Your task to perform on an android device: turn vacation reply on in the gmail app Image 0: 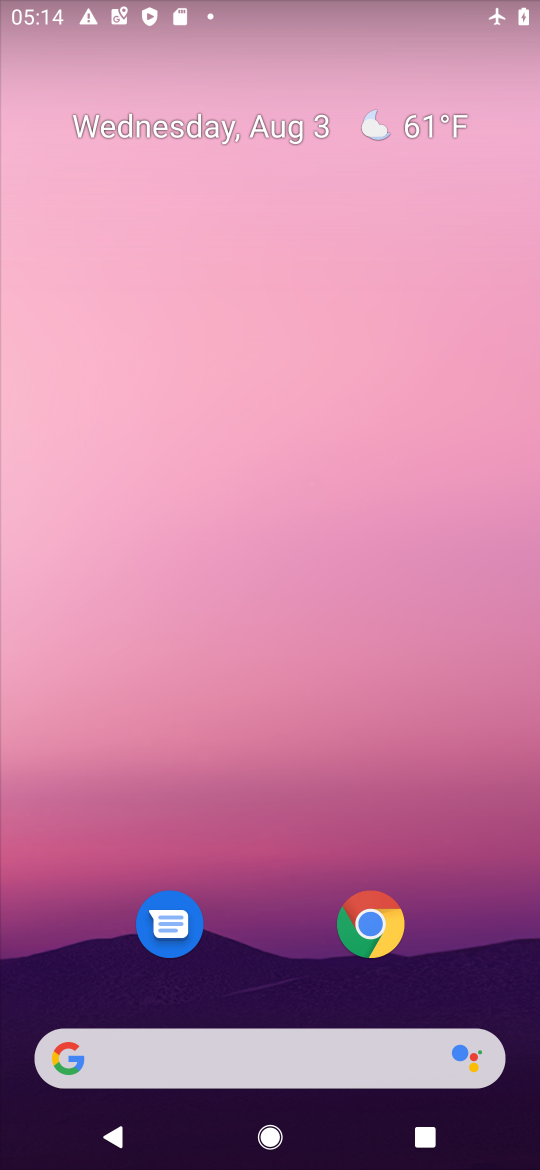
Step 0: drag from (247, 960) to (220, 427)
Your task to perform on an android device: turn vacation reply on in the gmail app Image 1: 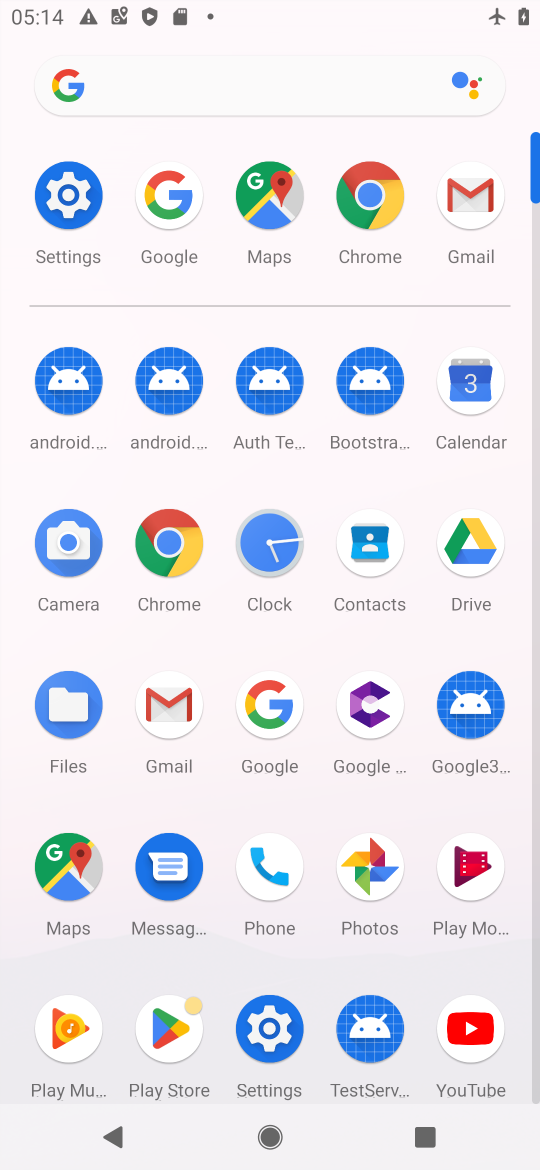
Step 1: click (445, 196)
Your task to perform on an android device: turn vacation reply on in the gmail app Image 2: 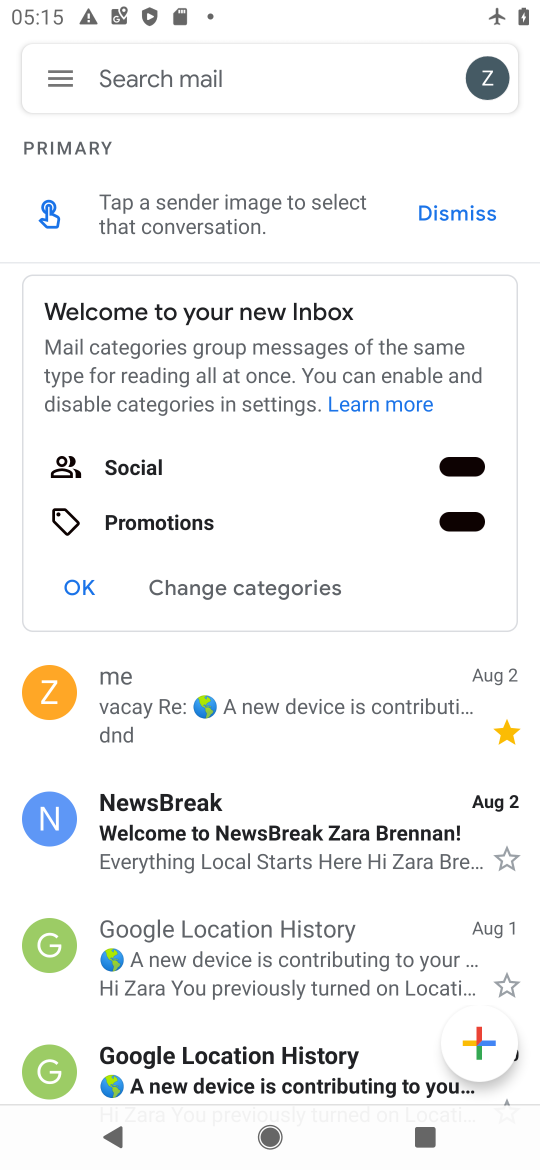
Step 2: click (47, 77)
Your task to perform on an android device: turn vacation reply on in the gmail app Image 3: 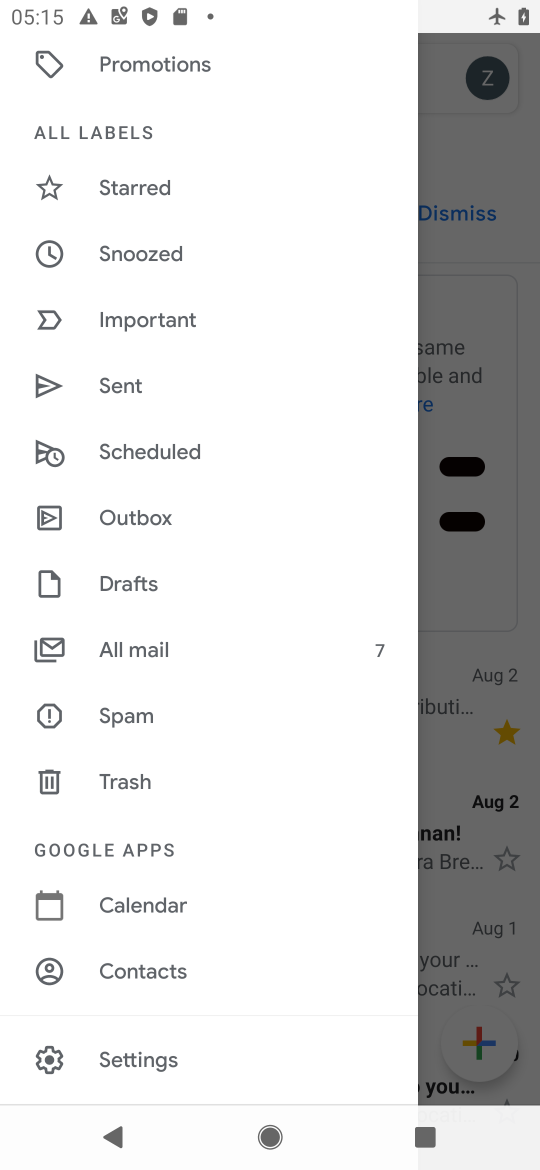
Step 3: click (160, 1041)
Your task to perform on an android device: turn vacation reply on in the gmail app Image 4: 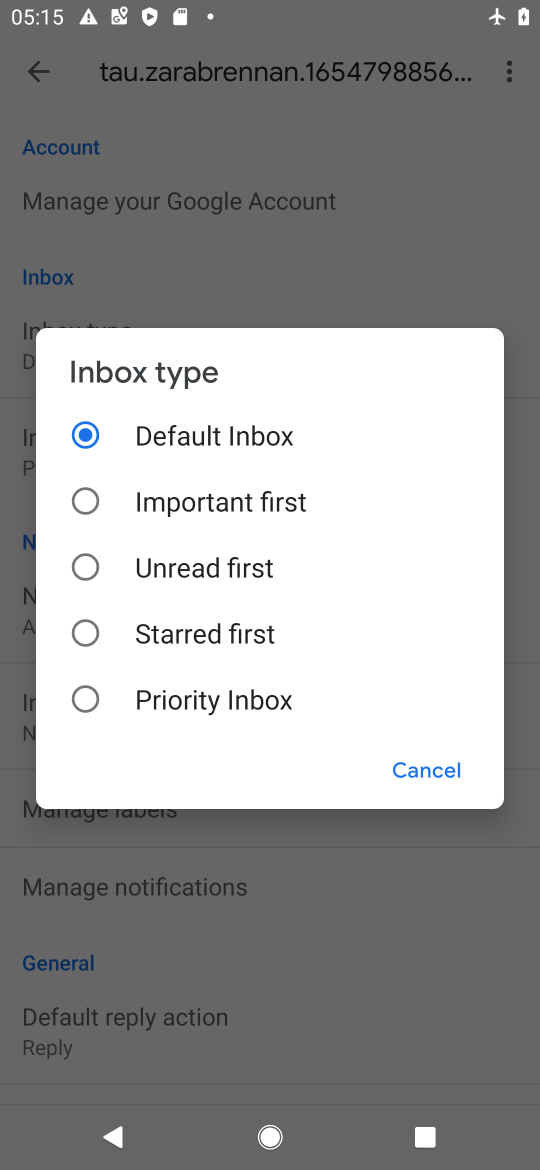
Step 4: click (443, 750)
Your task to perform on an android device: turn vacation reply on in the gmail app Image 5: 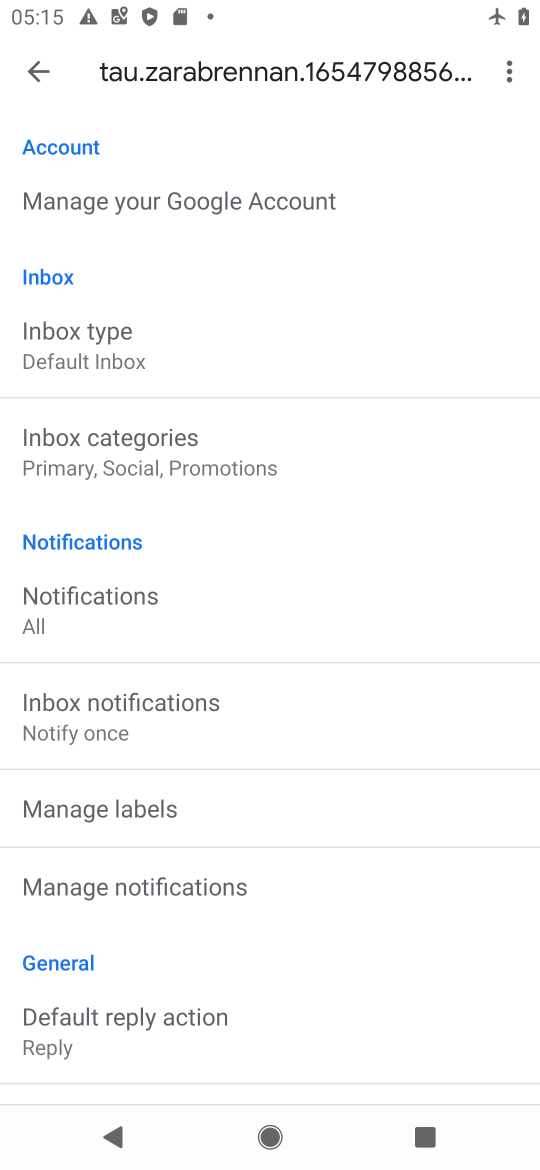
Step 5: drag from (327, 982) to (406, 573)
Your task to perform on an android device: turn vacation reply on in the gmail app Image 6: 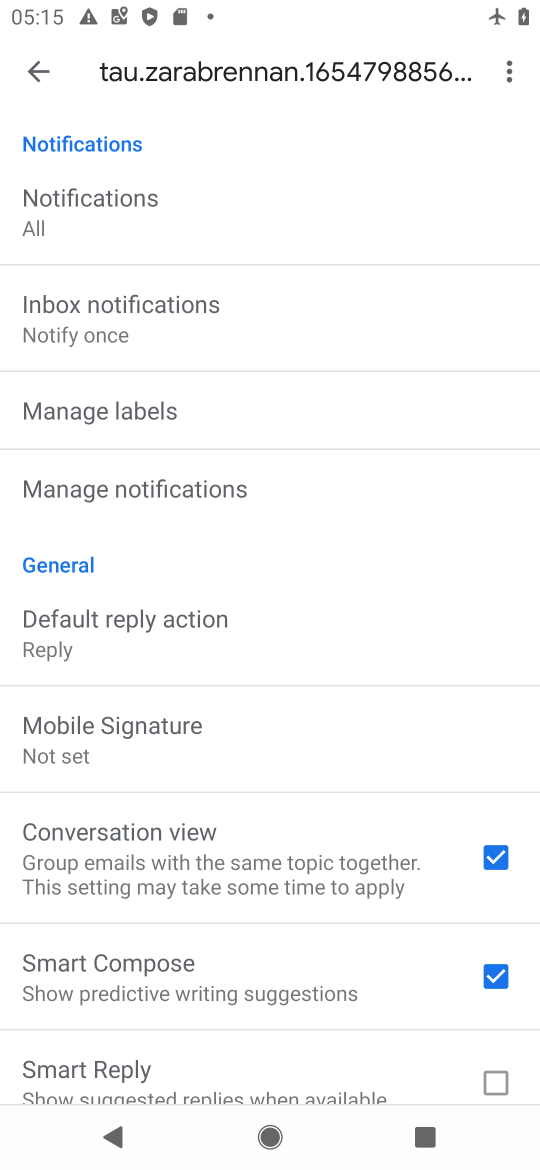
Step 6: drag from (368, 898) to (307, 585)
Your task to perform on an android device: turn vacation reply on in the gmail app Image 7: 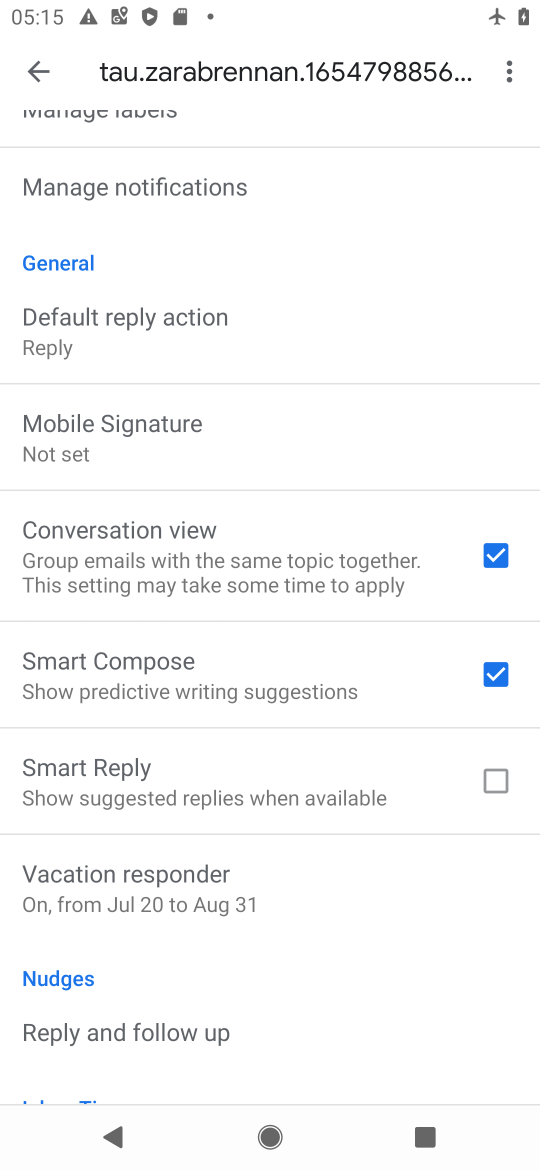
Step 7: click (235, 899)
Your task to perform on an android device: turn vacation reply on in the gmail app Image 8: 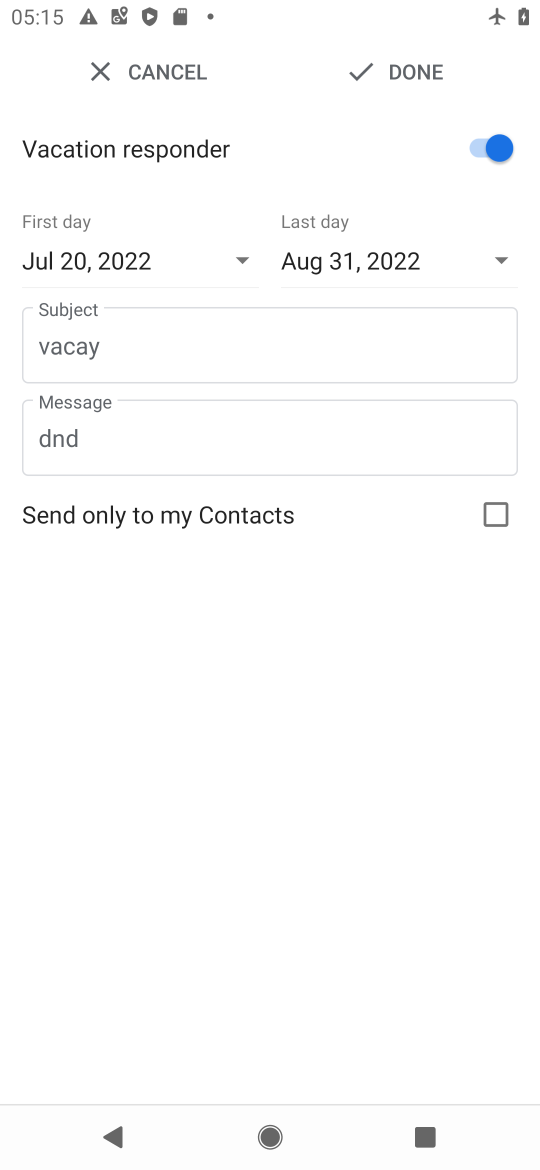
Step 8: task complete